Your task to perform on an android device: visit the assistant section in the google photos Image 0: 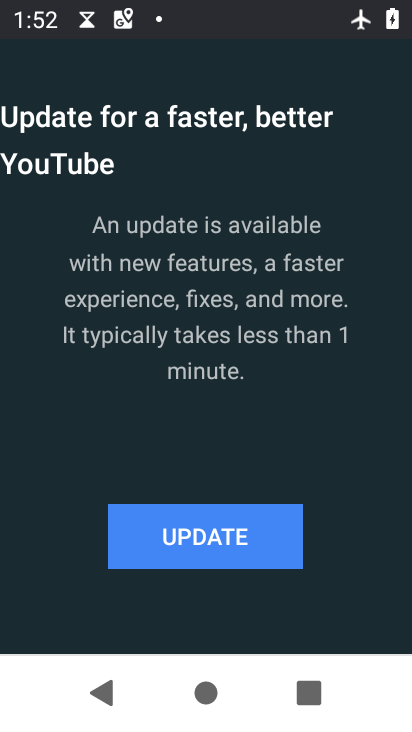
Step 0: press home button
Your task to perform on an android device: visit the assistant section in the google photos Image 1: 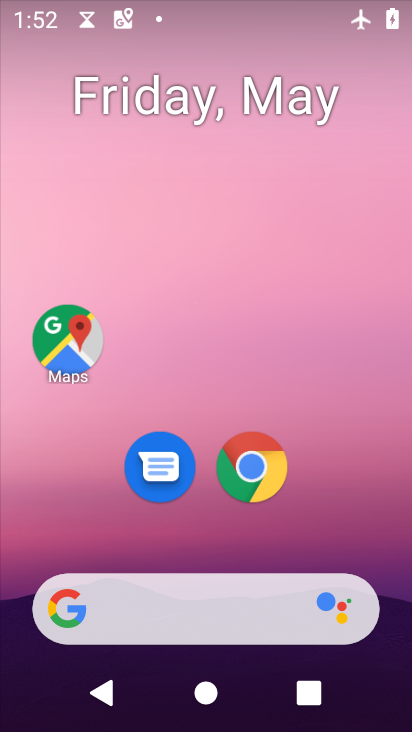
Step 1: drag from (334, 540) to (289, 246)
Your task to perform on an android device: visit the assistant section in the google photos Image 2: 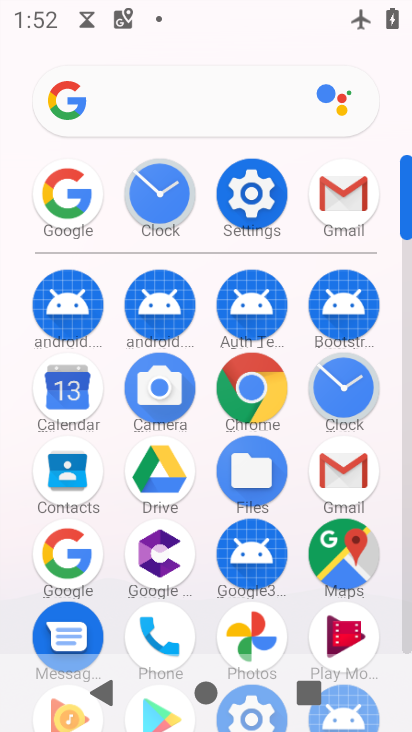
Step 2: drag from (202, 514) to (206, 376)
Your task to perform on an android device: visit the assistant section in the google photos Image 3: 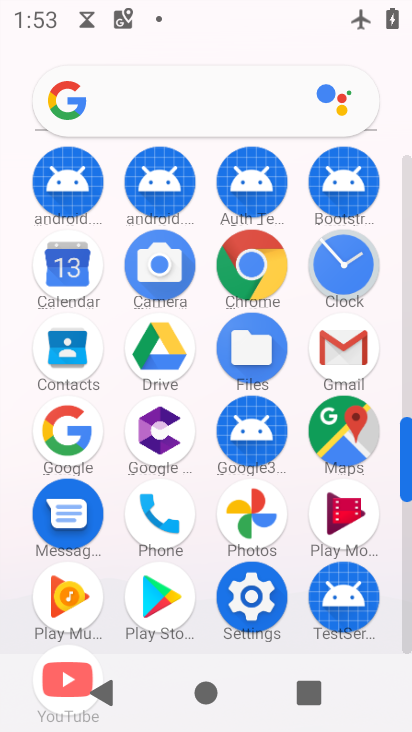
Step 3: click (251, 509)
Your task to perform on an android device: visit the assistant section in the google photos Image 4: 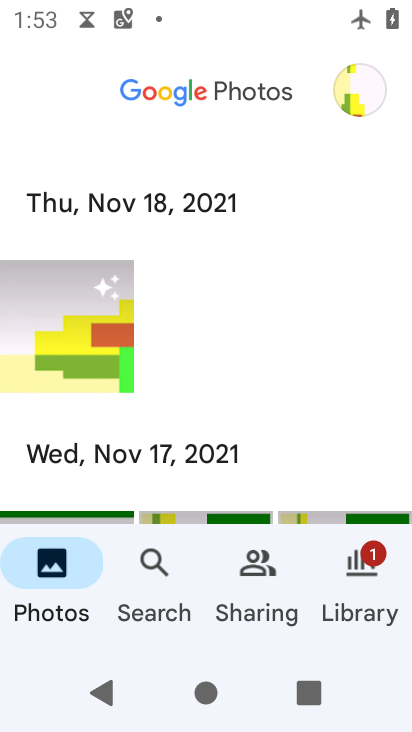
Step 4: drag from (249, 413) to (266, 122)
Your task to perform on an android device: visit the assistant section in the google photos Image 5: 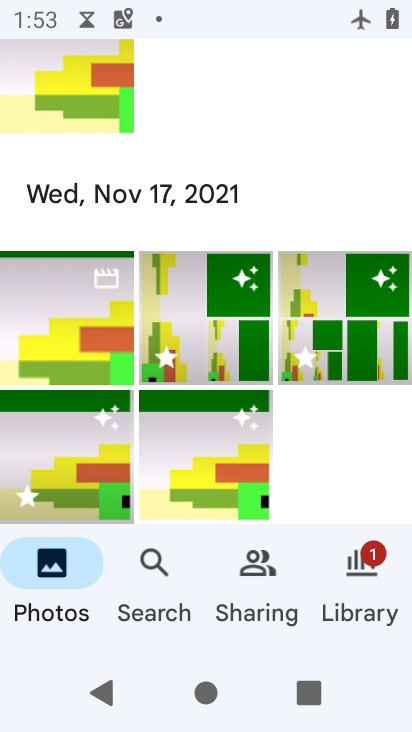
Step 5: click (365, 564)
Your task to perform on an android device: visit the assistant section in the google photos Image 6: 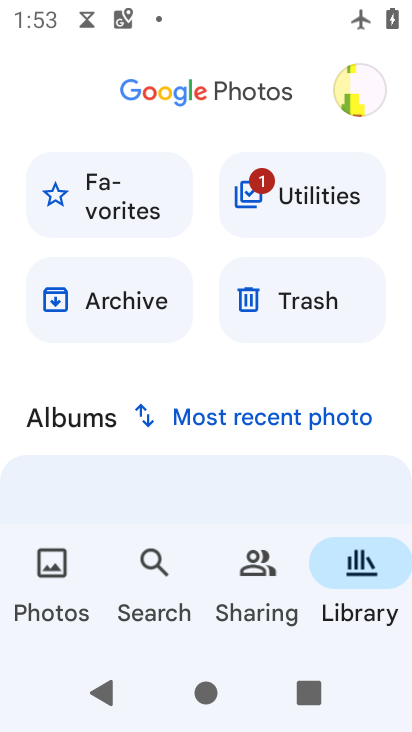
Step 6: click (265, 555)
Your task to perform on an android device: visit the assistant section in the google photos Image 7: 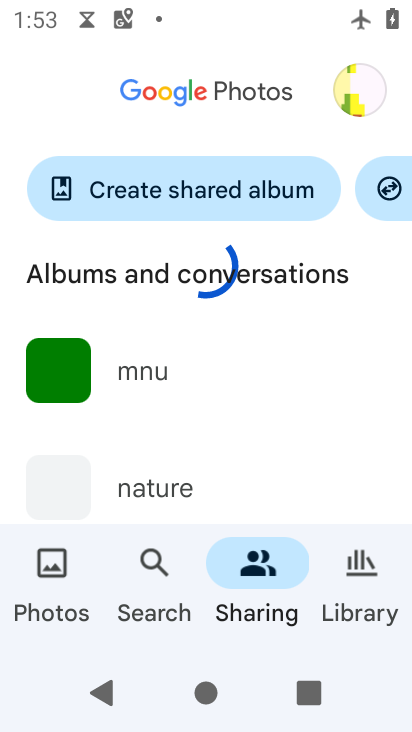
Step 7: click (152, 566)
Your task to perform on an android device: visit the assistant section in the google photos Image 8: 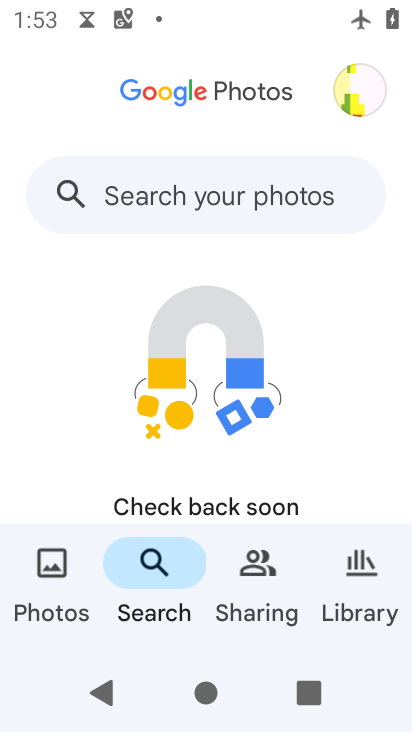
Step 8: click (53, 565)
Your task to perform on an android device: visit the assistant section in the google photos Image 9: 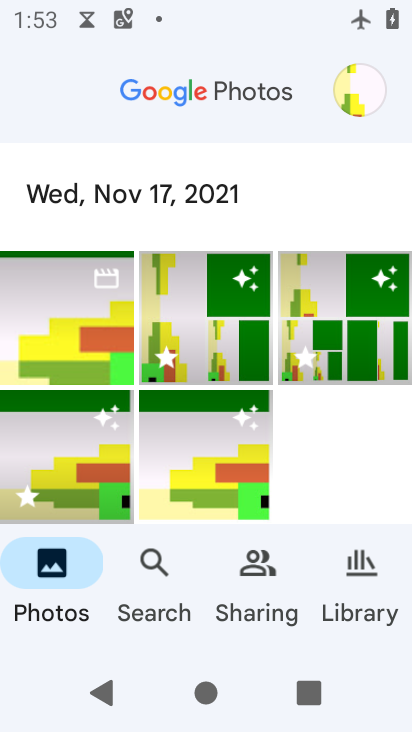
Step 9: task complete